Your task to perform on an android device: Do I have any events tomorrow? Image 0: 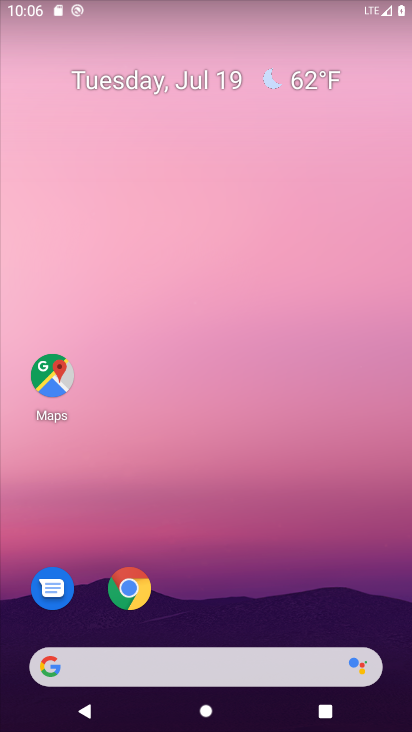
Step 0: drag from (196, 387) to (186, 31)
Your task to perform on an android device: Do I have any events tomorrow? Image 1: 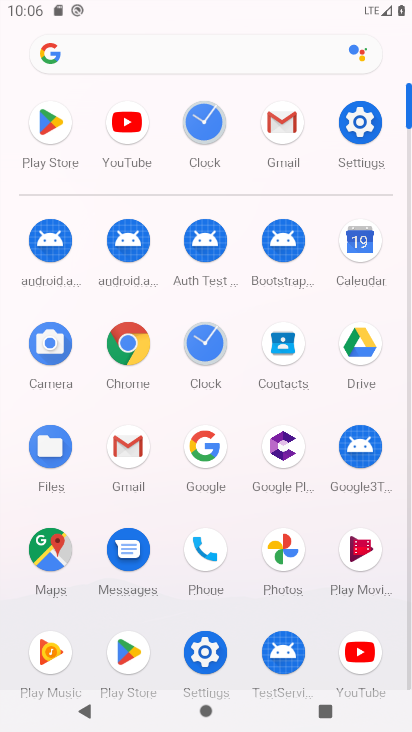
Step 1: click (200, 346)
Your task to perform on an android device: Do I have any events tomorrow? Image 2: 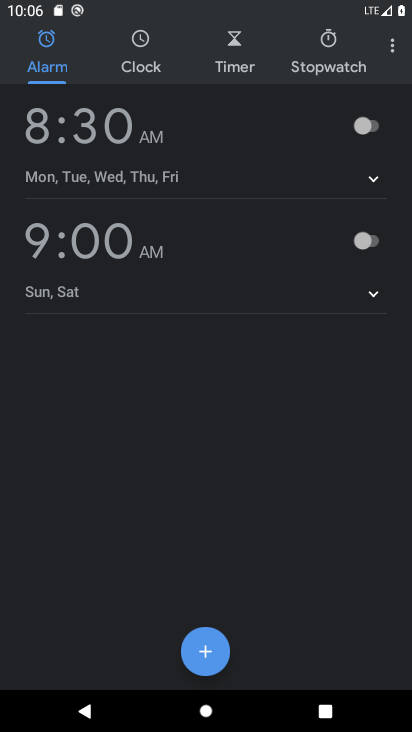
Step 2: press back button
Your task to perform on an android device: Do I have any events tomorrow? Image 3: 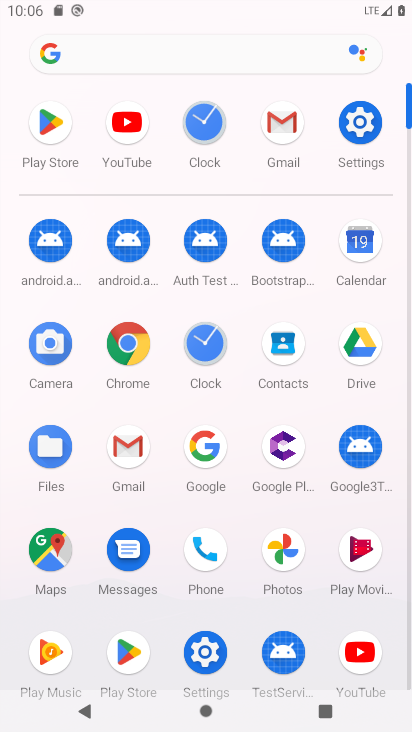
Step 3: click (360, 249)
Your task to perform on an android device: Do I have any events tomorrow? Image 4: 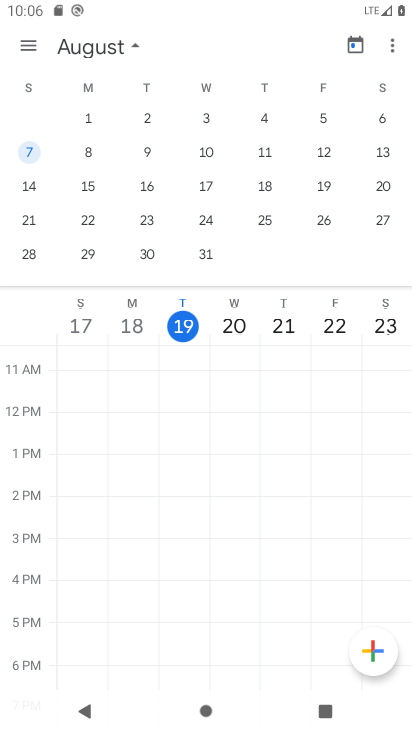
Step 4: drag from (76, 184) to (389, 189)
Your task to perform on an android device: Do I have any events tomorrow? Image 5: 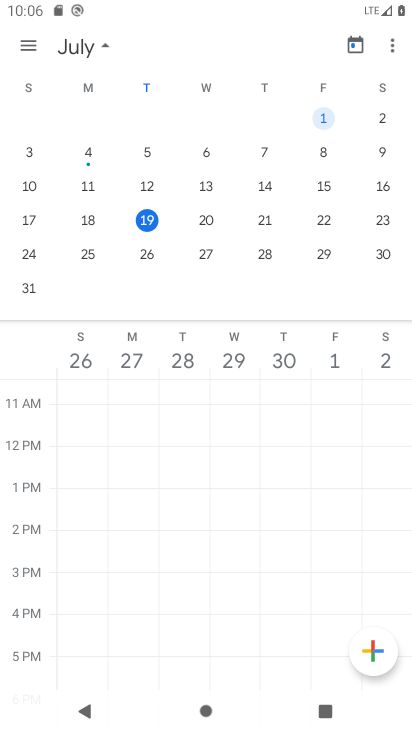
Step 5: click (203, 221)
Your task to perform on an android device: Do I have any events tomorrow? Image 6: 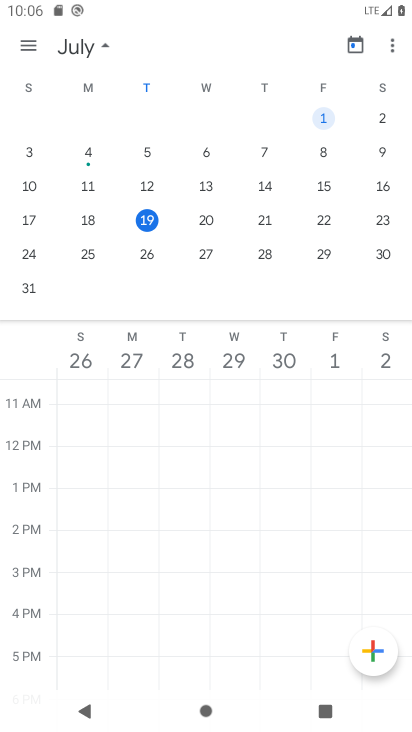
Step 6: click (203, 221)
Your task to perform on an android device: Do I have any events tomorrow? Image 7: 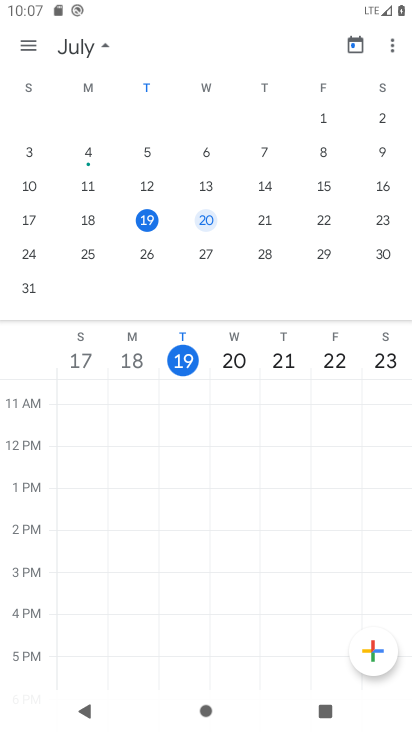
Step 7: task complete